Your task to perform on an android device: Clear all items from cart on walmart. Add "bose soundsport free" to the cart on walmart, then select checkout. Image 0: 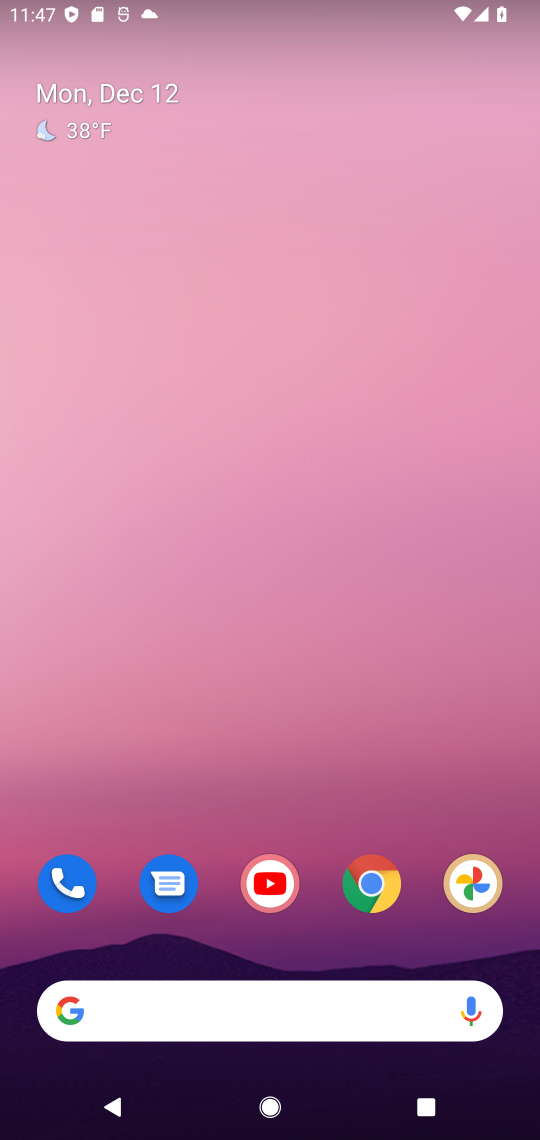
Step 0: click (307, 993)
Your task to perform on an android device: Clear all items from cart on walmart. Add "bose soundsport free" to the cart on walmart, then select checkout. Image 1: 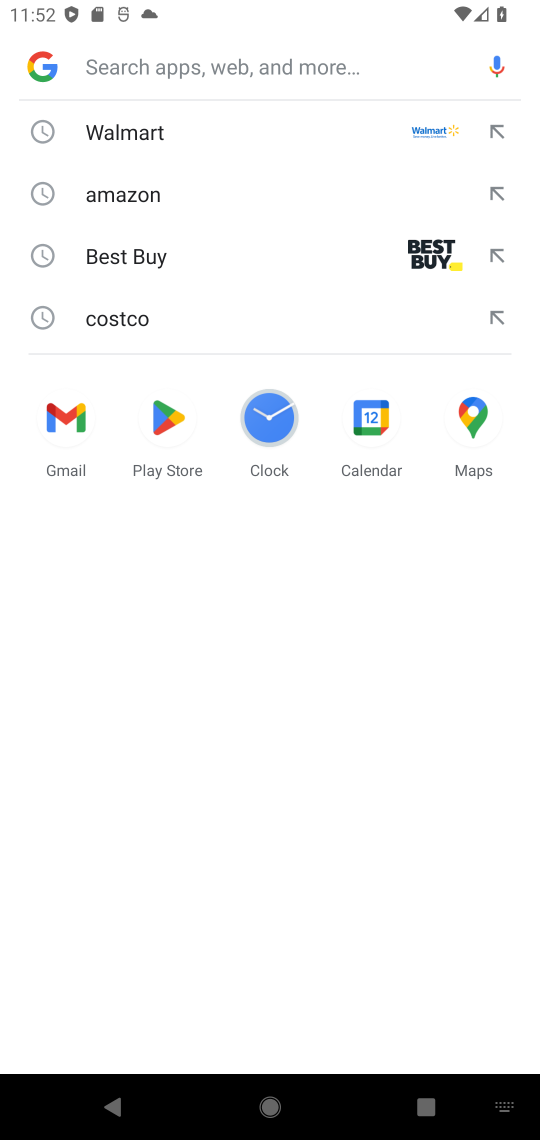
Step 1: press home button
Your task to perform on an android device: Clear all items from cart on walmart. Add "bose soundsport free" to the cart on walmart, then select checkout. Image 2: 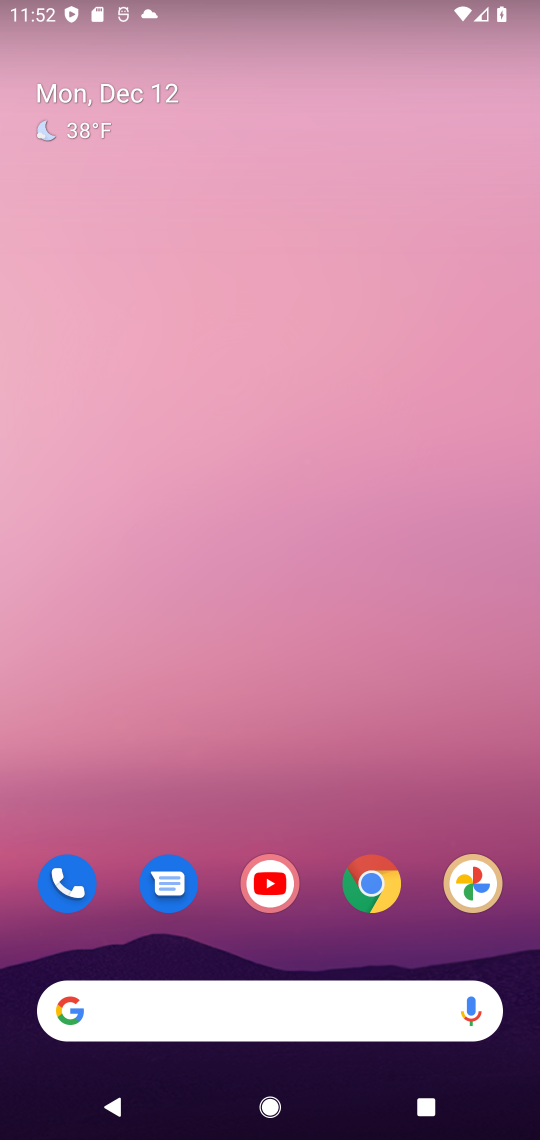
Step 2: click (261, 999)
Your task to perform on an android device: Clear all items from cart on walmart. Add "bose soundsport free" to the cart on walmart, then select checkout. Image 3: 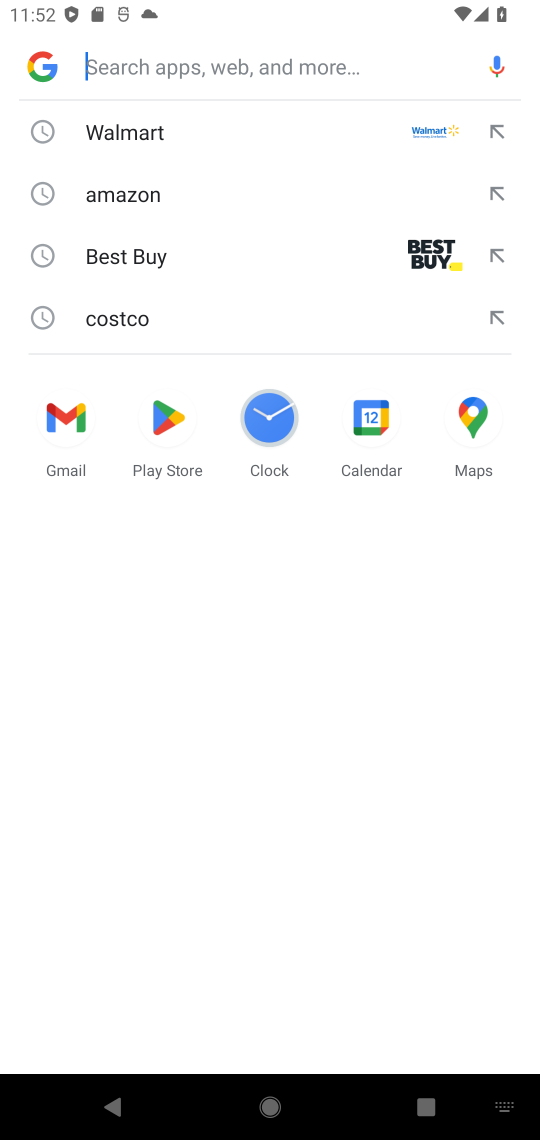
Step 3: click (140, 137)
Your task to perform on an android device: Clear all items from cart on walmart. Add "bose soundsport free" to the cart on walmart, then select checkout. Image 4: 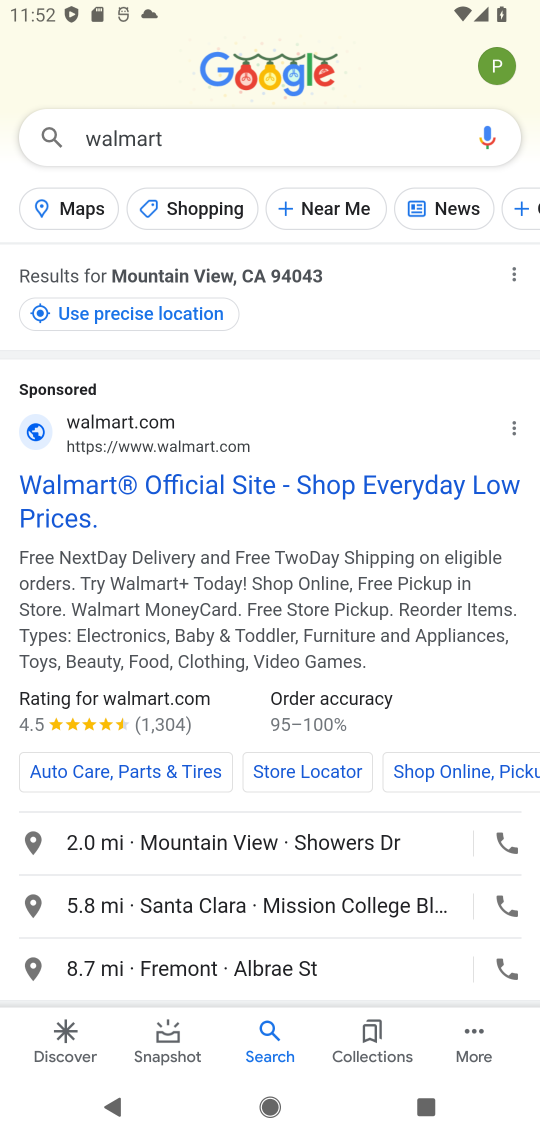
Step 4: click (128, 475)
Your task to perform on an android device: Clear all items from cart on walmart. Add "bose soundsport free" to the cart on walmart, then select checkout. Image 5: 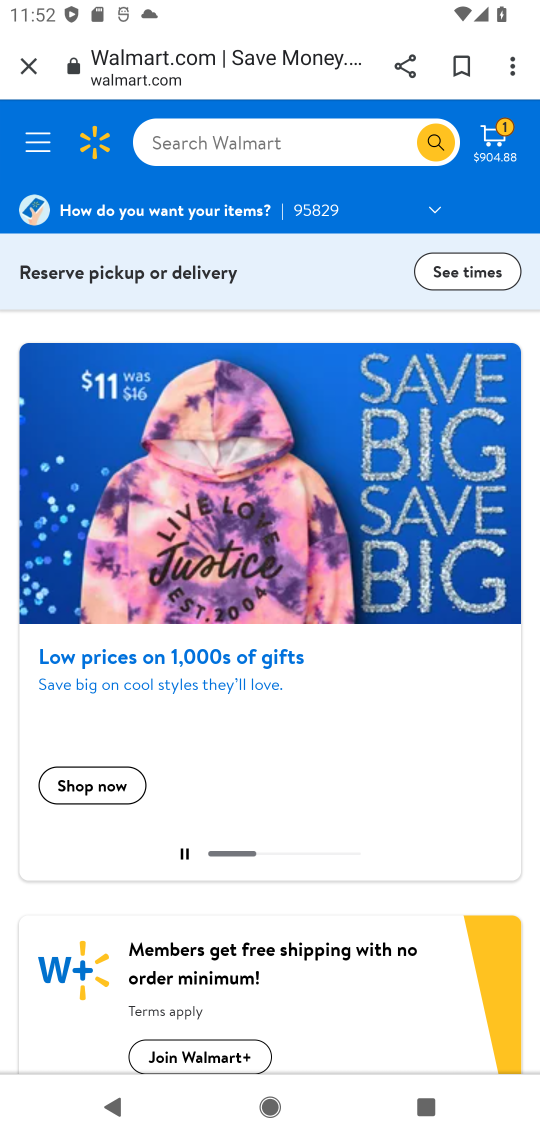
Step 5: click (491, 132)
Your task to perform on an android device: Clear all items from cart on walmart. Add "bose soundsport free" to the cart on walmart, then select checkout. Image 6: 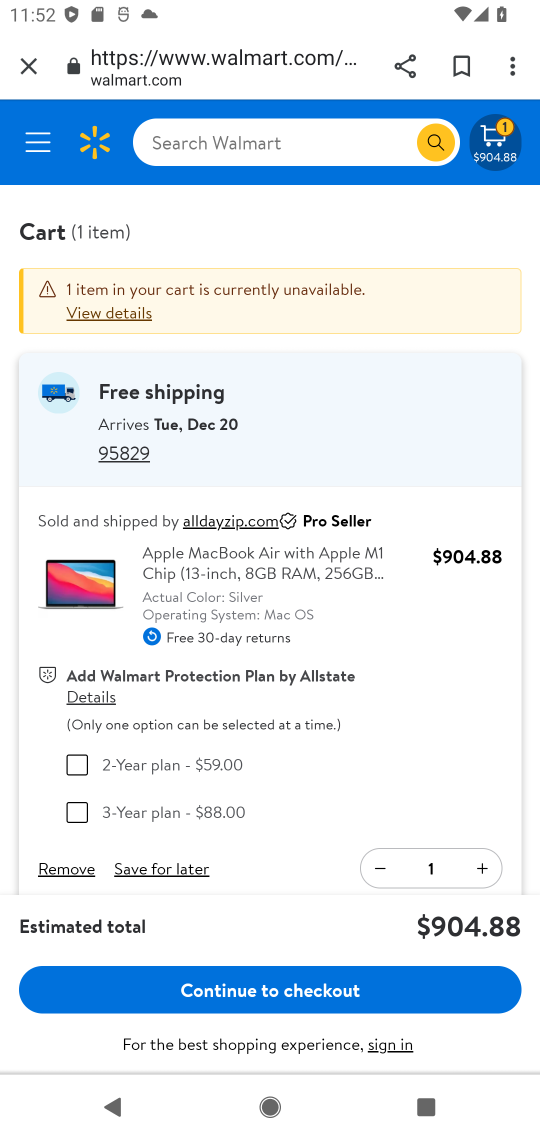
Step 6: click (79, 870)
Your task to perform on an android device: Clear all items from cart on walmart. Add "bose soundsport free" to the cart on walmart, then select checkout. Image 7: 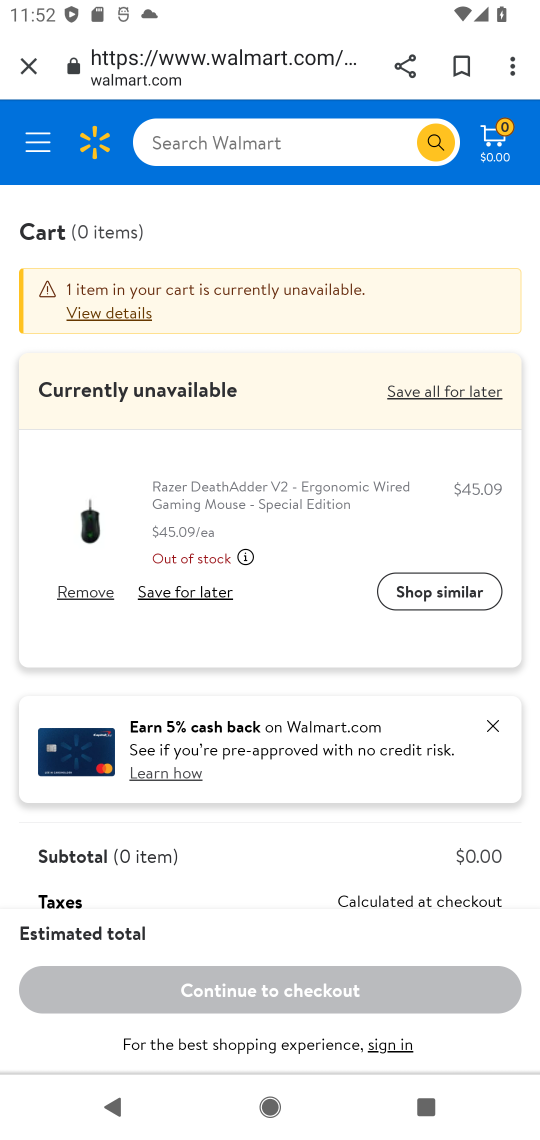
Step 7: task complete